Your task to perform on an android device: turn off smart reply in the gmail app Image 0: 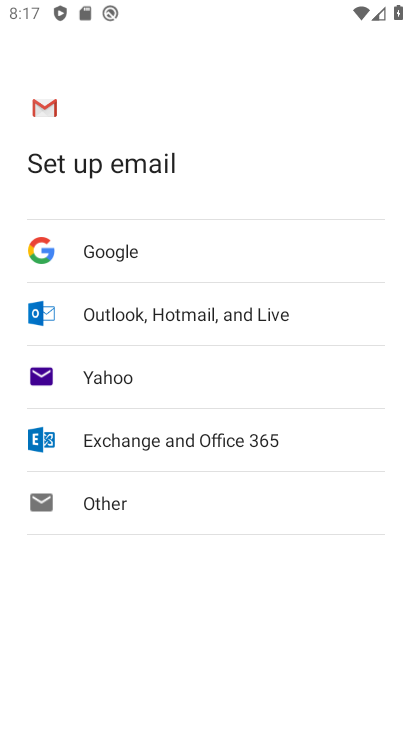
Step 0: press home button
Your task to perform on an android device: turn off smart reply in the gmail app Image 1: 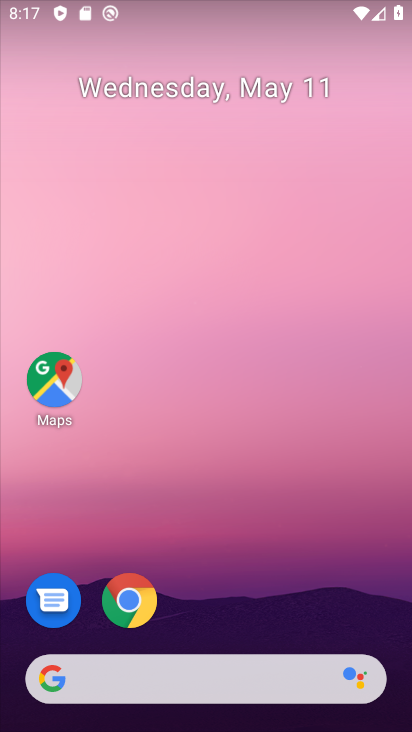
Step 1: drag from (248, 592) to (256, 82)
Your task to perform on an android device: turn off smart reply in the gmail app Image 2: 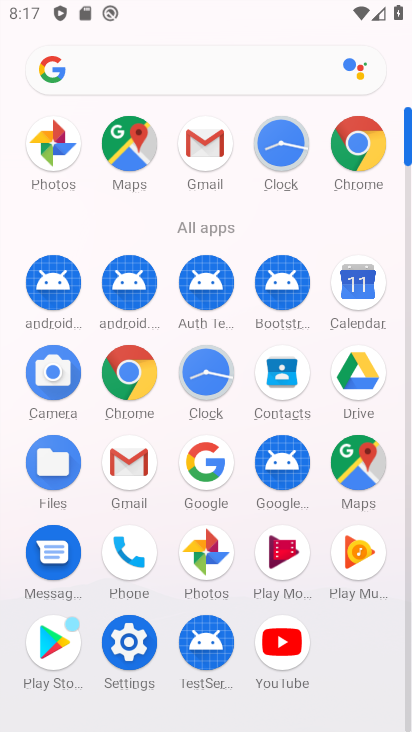
Step 2: click (205, 141)
Your task to perform on an android device: turn off smart reply in the gmail app Image 3: 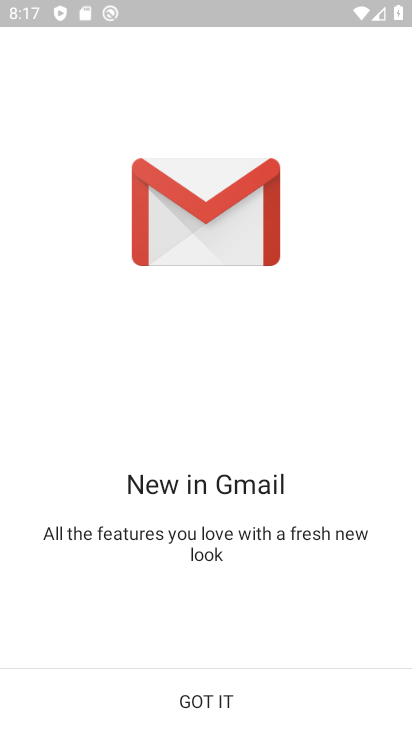
Step 3: click (196, 691)
Your task to perform on an android device: turn off smart reply in the gmail app Image 4: 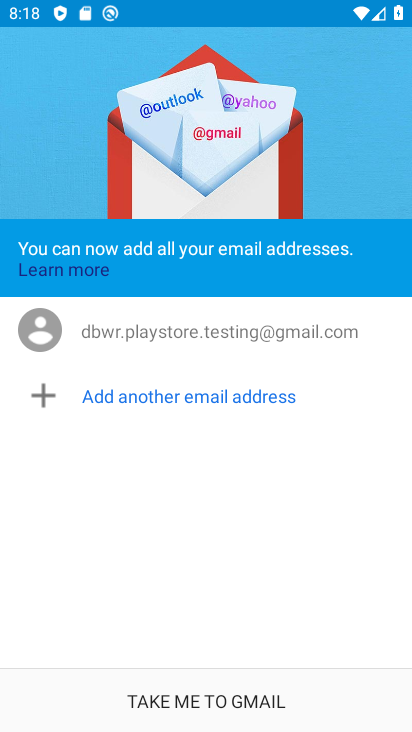
Step 4: click (207, 698)
Your task to perform on an android device: turn off smart reply in the gmail app Image 5: 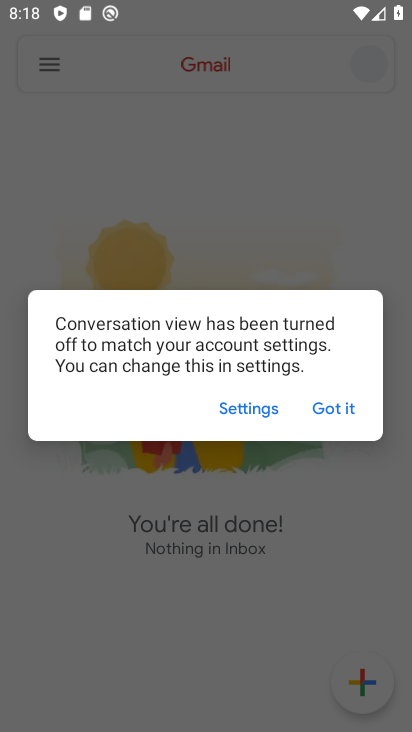
Step 5: click (347, 412)
Your task to perform on an android device: turn off smart reply in the gmail app Image 6: 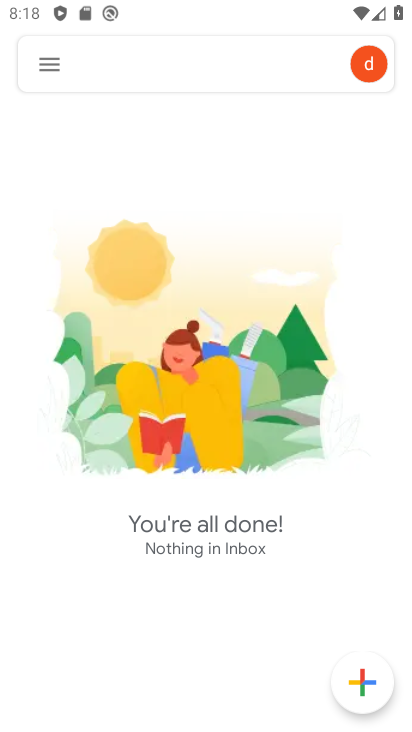
Step 6: click (55, 70)
Your task to perform on an android device: turn off smart reply in the gmail app Image 7: 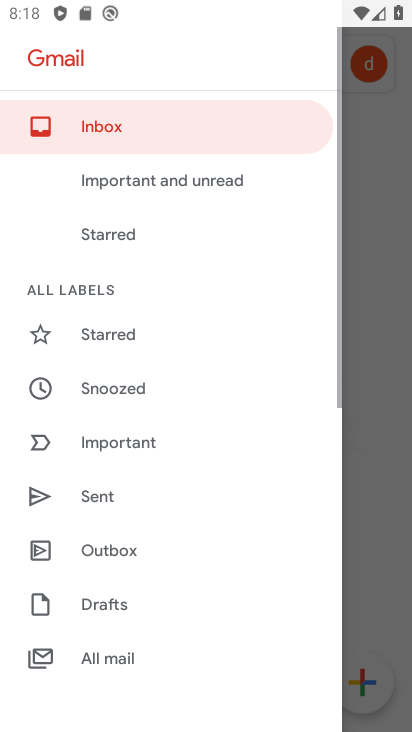
Step 7: drag from (178, 615) to (169, 214)
Your task to perform on an android device: turn off smart reply in the gmail app Image 8: 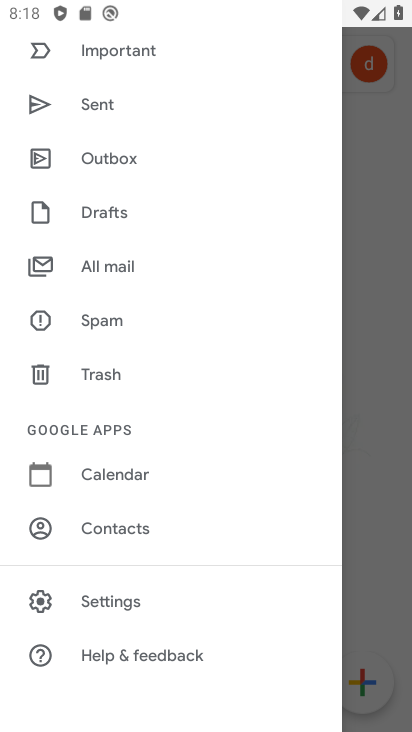
Step 8: click (114, 608)
Your task to perform on an android device: turn off smart reply in the gmail app Image 9: 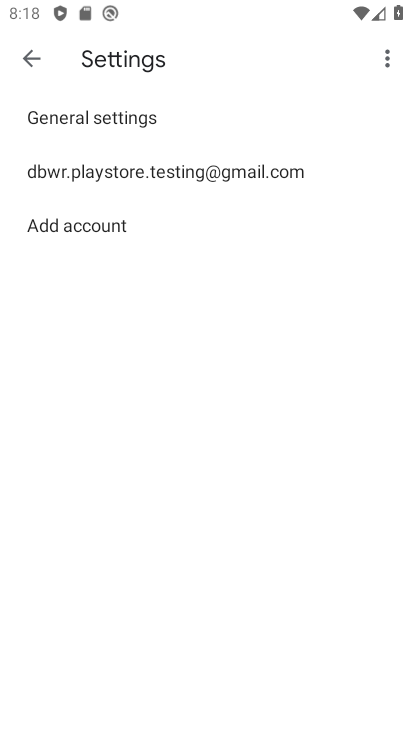
Step 9: click (160, 173)
Your task to perform on an android device: turn off smart reply in the gmail app Image 10: 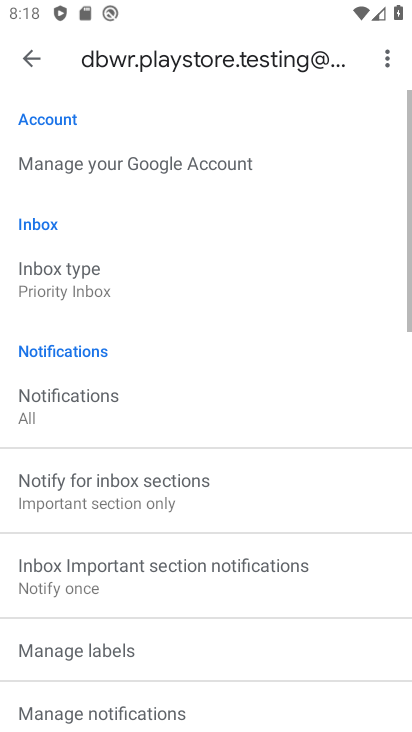
Step 10: drag from (260, 643) to (215, 62)
Your task to perform on an android device: turn off smart reply in the gmail app Image 11: 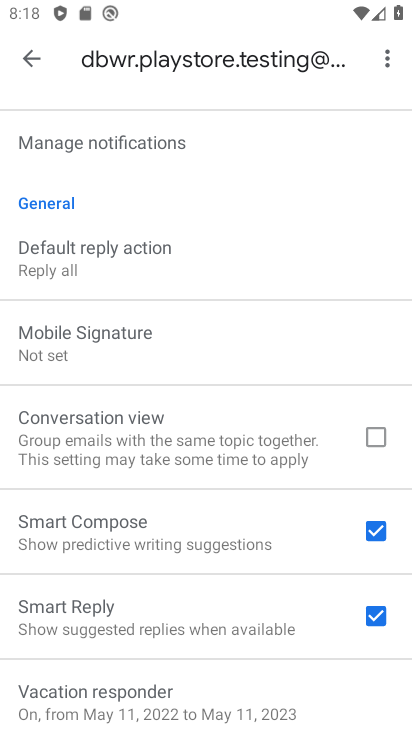
Step 11: click (385, 617)
Your task to perform on an android device: turn off smart reply in the gmail app Image 12: 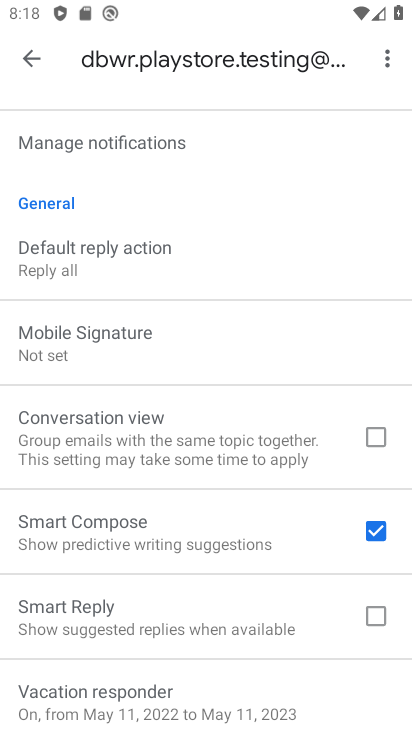
Step 12: task complete